Your task to perform on an android device: Open Chrome and go to the settings page Image 0: 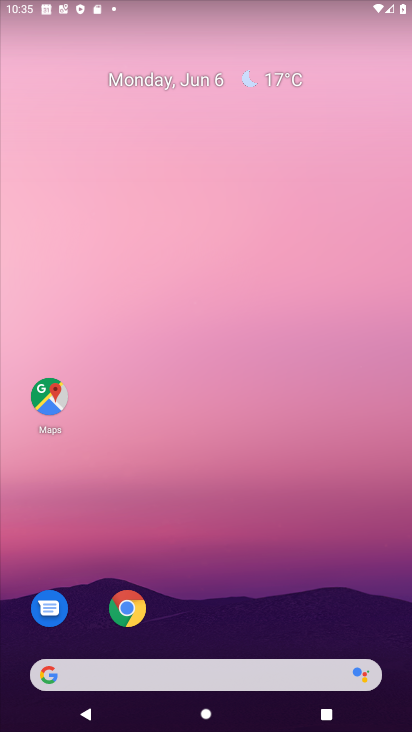
Step 0: click (131, 611)
Your task to perform on an android device: Open Chrome and go to the settings page Image 1: 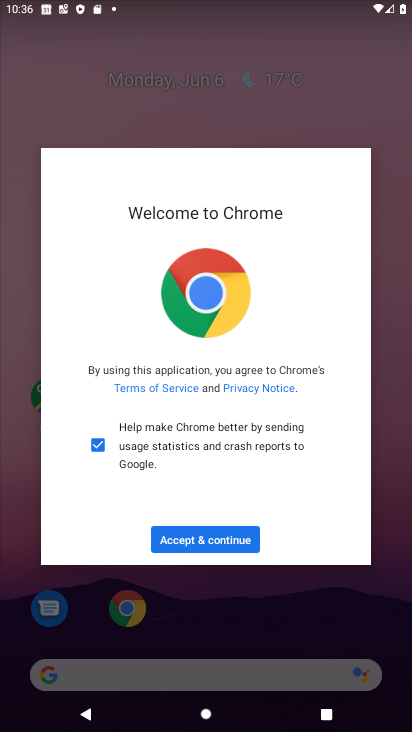
Step 1: click (202, 541)
Your task to perform on an android device: Open Chrome and go to the settings page Image 2: 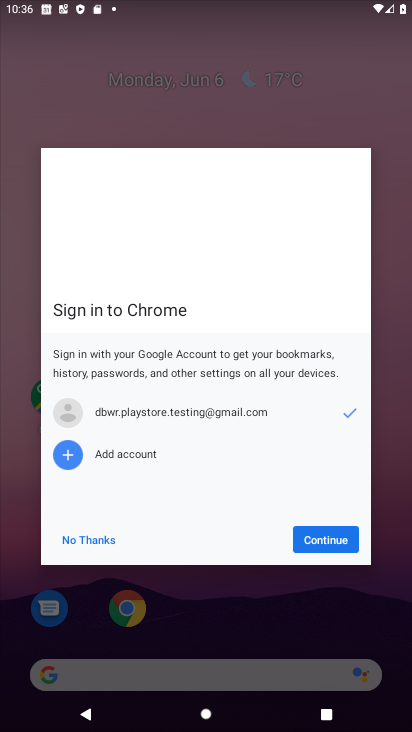
Step 2: click (322, 548)
Your task to perform on an android device: Open Chrome and go to the settings page Image 3: 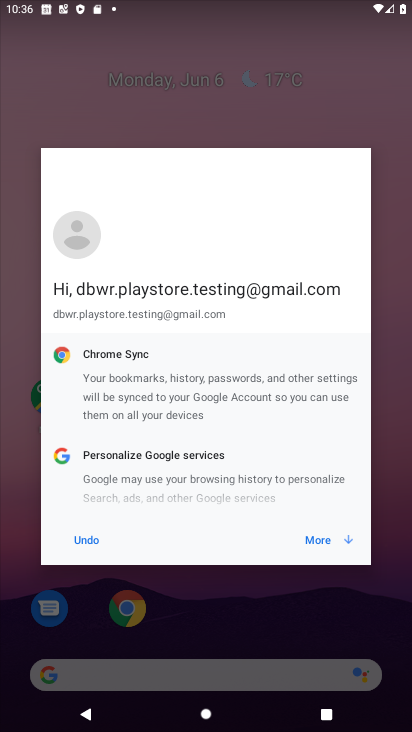
Step 3: click (321, 540)
Your task to perform on an android device: Open Chrome and go to the settings page Image 4: 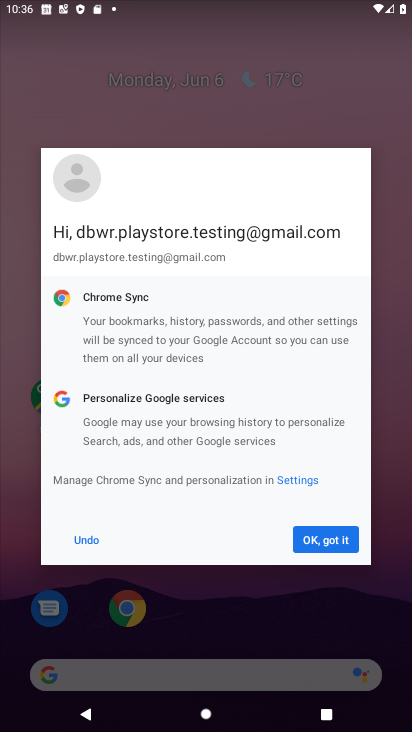
Step 4: click (321, 540)
Your task to perform on an android device: Open Chrome and go to the settings page Image 5: 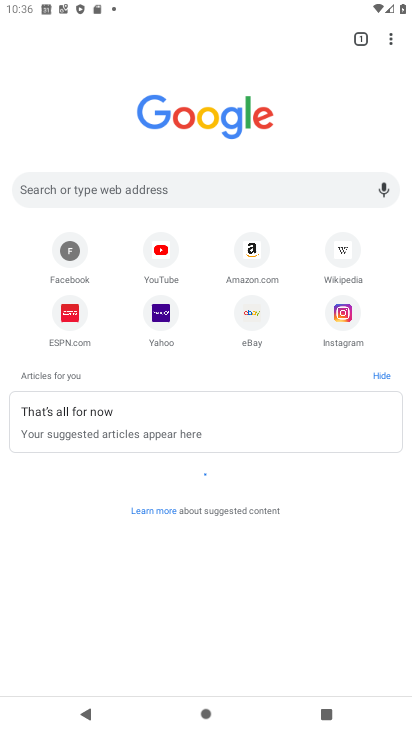
Step 5: click (389, 47)
Your task to perform on an android device: Open Chrome and go to the settings page Image 6: 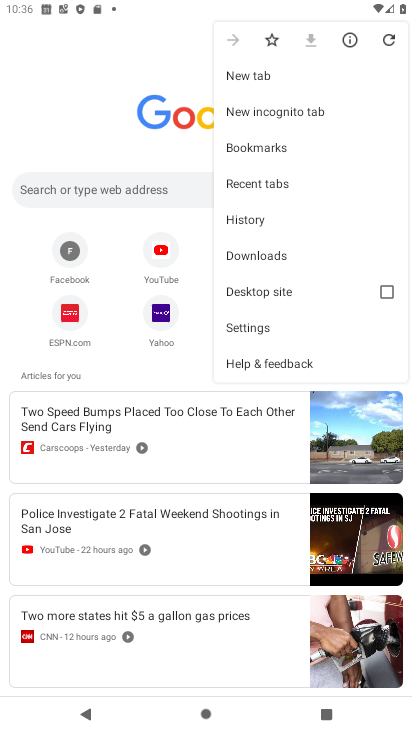
Step 6: click (271, 322)
Your task to perform on an android device: Open Chrome and go to the settings page Image 7: 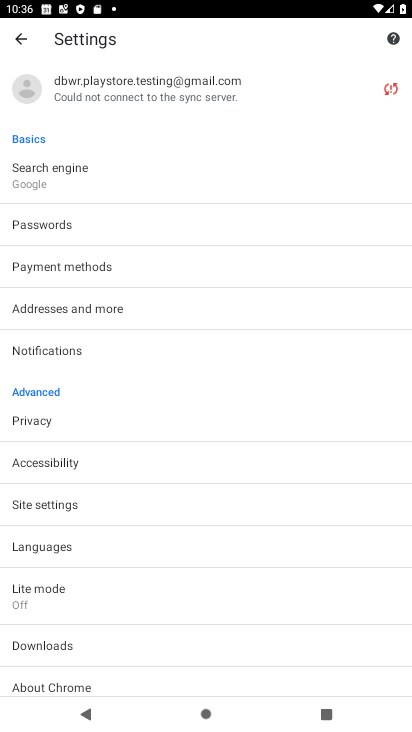
Step 7: task complete